Your task to perform on an android device: Search for sushi restaurants on Maps Image 0: 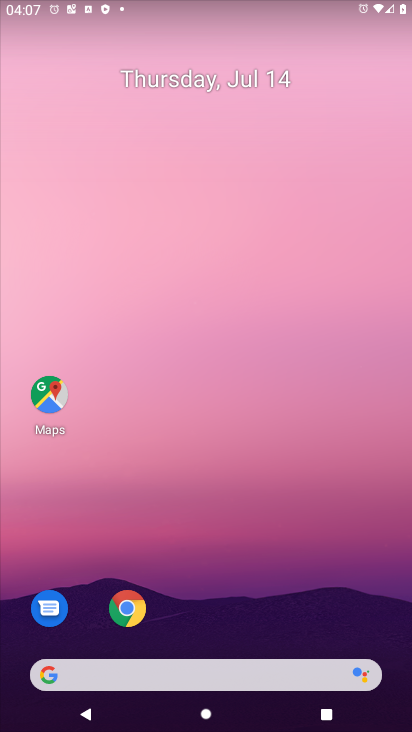
Step 0: click (51, 393)
Your task to perform on an android device: Search for sushi restaurants on Maps Image 1: 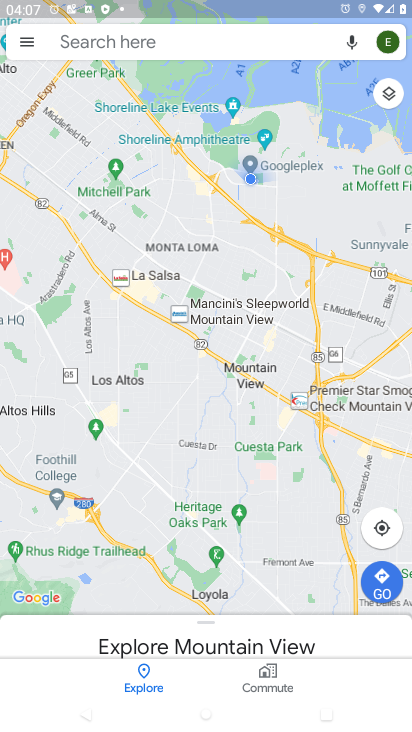
Step 1: click (113, 40)
Your task to perform on an android device: Search for sushi restaurants on Maps Image 2: 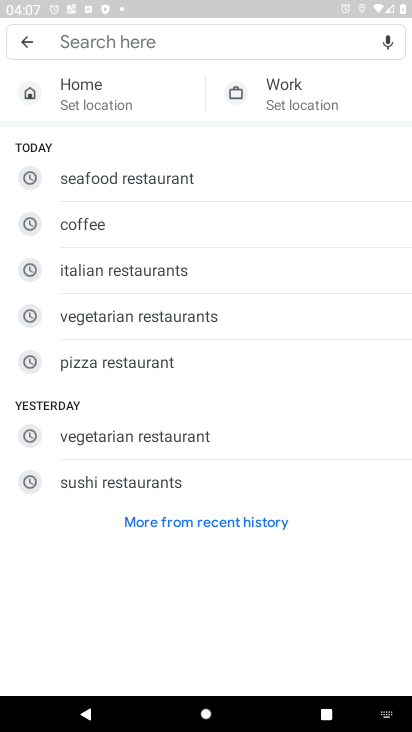
Step 2: type "sushi restaurants"
Your task to perform on an android device: Search for sushi restaurants on Maps Image 3: 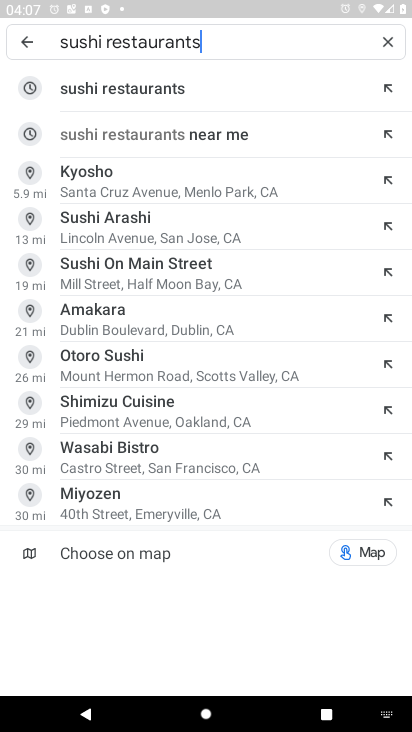
Step 3: click (95, 78)
Your task to perform on an android device: Search for sushi restaurants on Maps Image 4: 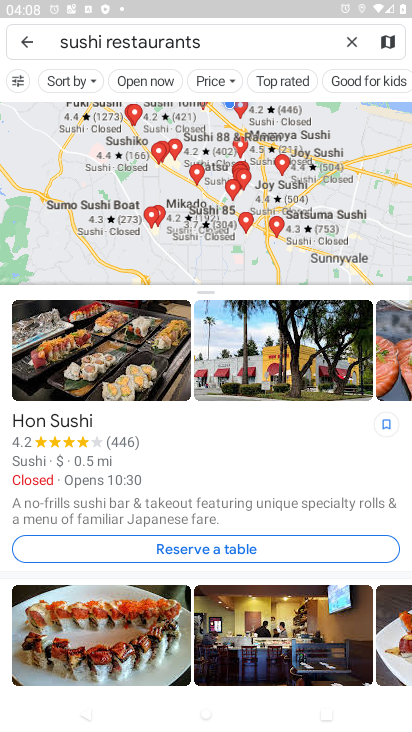
Step 4: task complete